Your task to perform on an android device: Go to wifi settings Image 0: 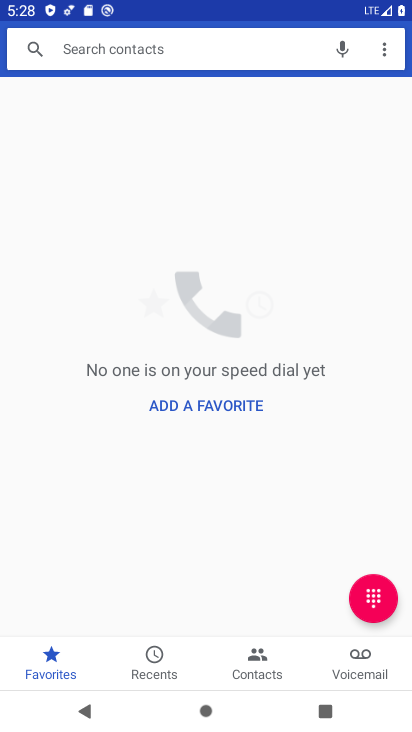
Step 0: press home button
Your task to perform on an android device: Go to wifi settings Image 1: 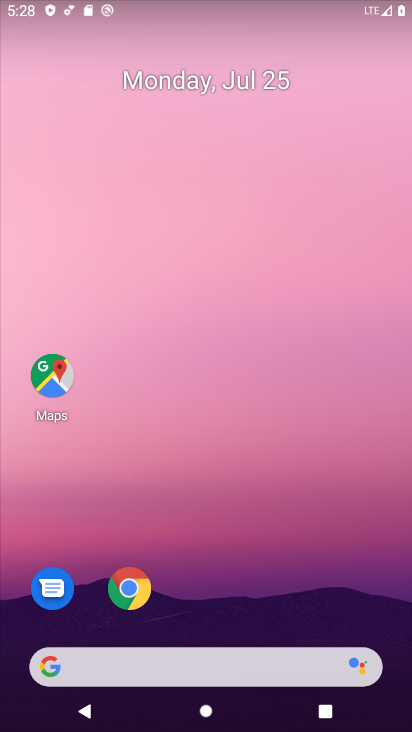
Step 1: drag from (175, 669) to (266, 120)
Your task to perform on an android device: Go to wifi settings Image 2: 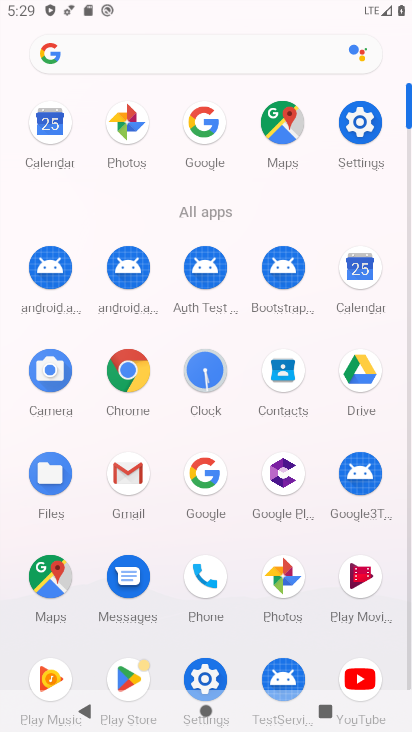
Step 2: click (361, 120)
Your task to perform on an android device: Go to wifi settings Image 3: 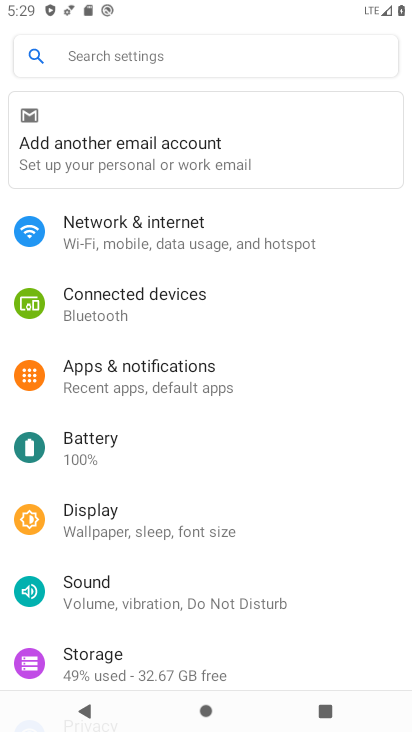
Step 3: click (103, 248)
Your task to perform on an android device: Go to wifi settings Image 4: 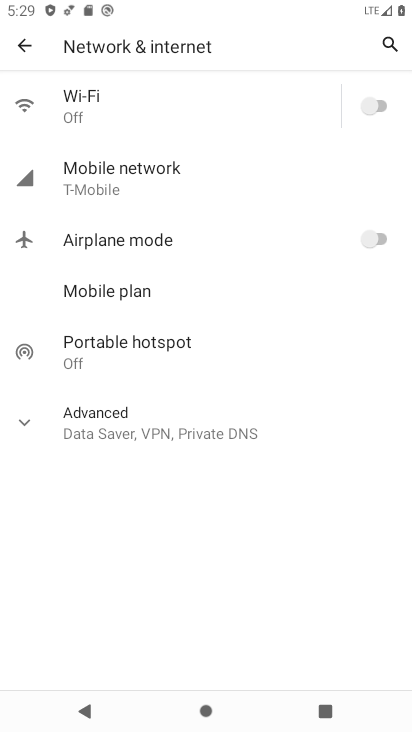
Step 4: click (109, 178)
Your task to perform on an android device: Go to wifi settings Image 5: 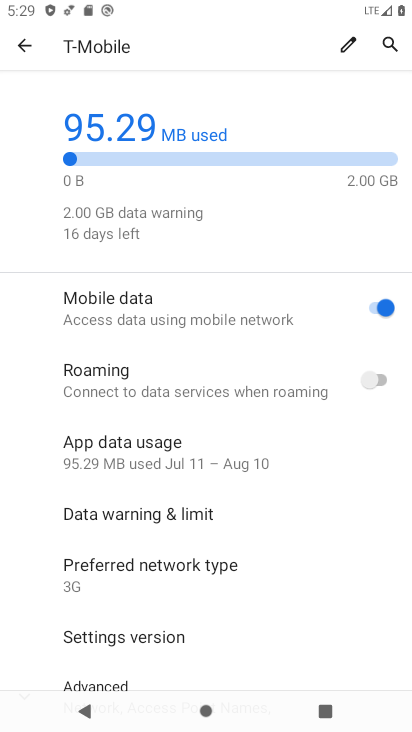
Step 5: task complete